Your task to perform on an android device: toggle notifications settings in the gmail app Image 0: 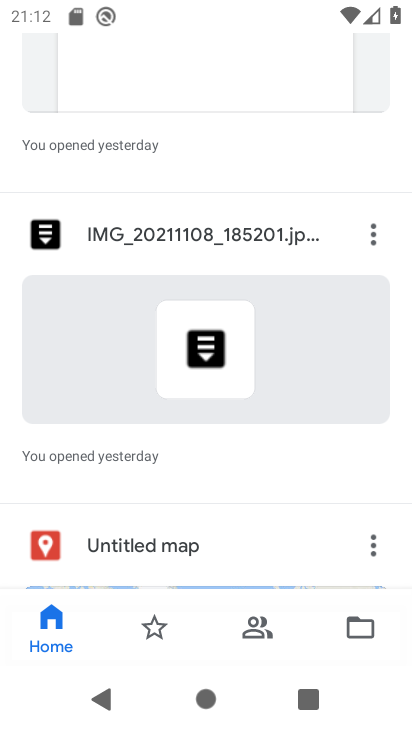
Step 0: drag from (214, 540) to (229, 159)
Your task to perform on an android device: toggle notifications settings in the gmail app Image 1: 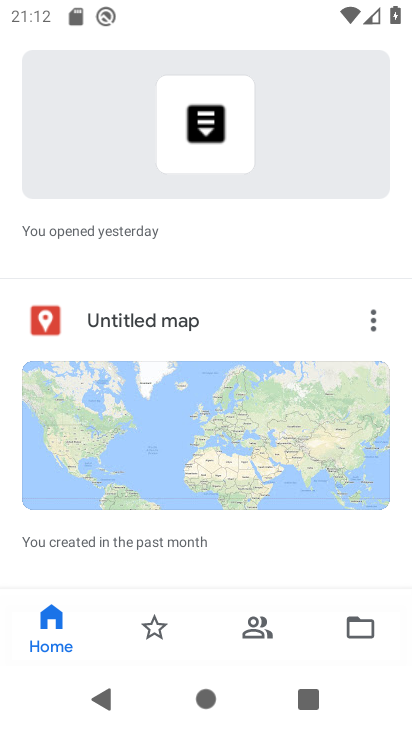
Step 1: drag from (208, 562) to (337, 71)
Your task to perform on an android device: toggle notifications settings in the gmail app Image 2: 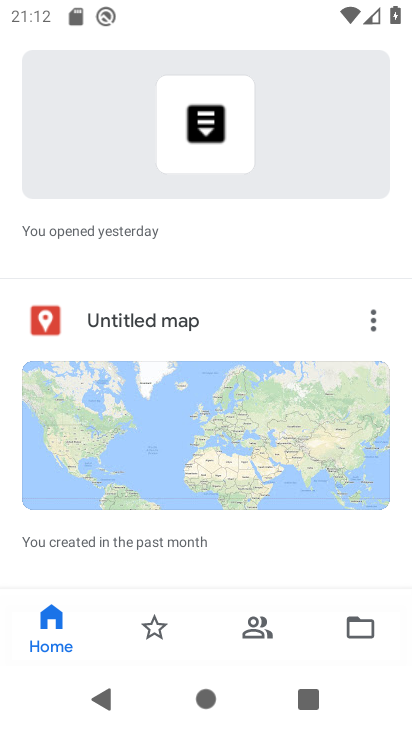
Step 2: drag from (244, 540) to (255, 89)
Your task to perform on an android device: toggle notifications settings in the gmail app Image 3: 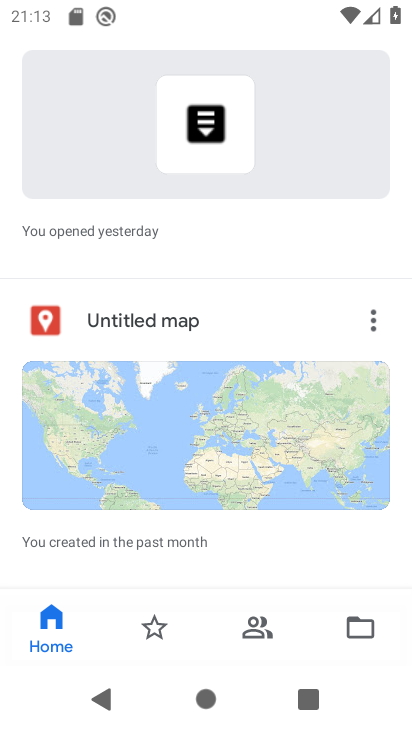
Step 3: drag from (234, 539) to (241, 215)
Your task to perform on an android device: toggle notifications settings in the gmail app Image 4: 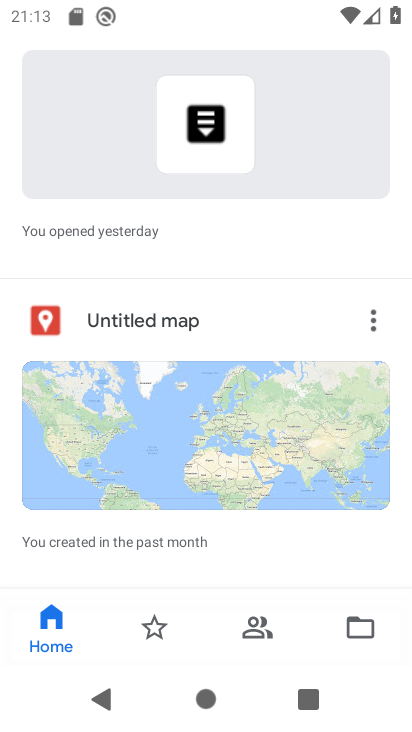
Step 4: drag from (233, 539) to (233, 119)
Your task to perform on an android device: toggle notifications settings in the gmail app Image 5: 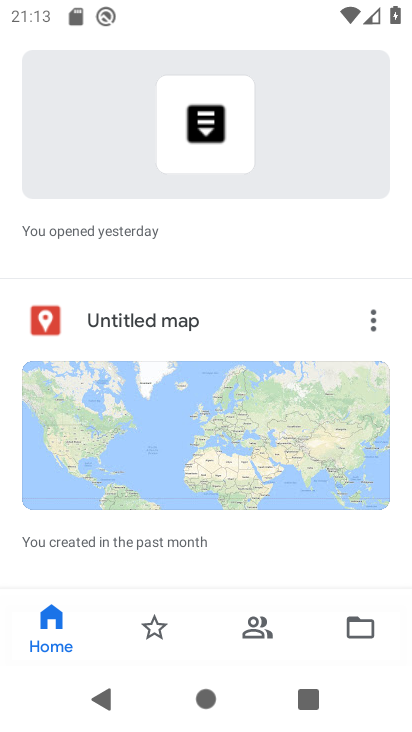
Step 5: drag from (201, 281) to (279, 557)
Your task to perform on an android device: toggle notifications settings in the gmail app Image 6: 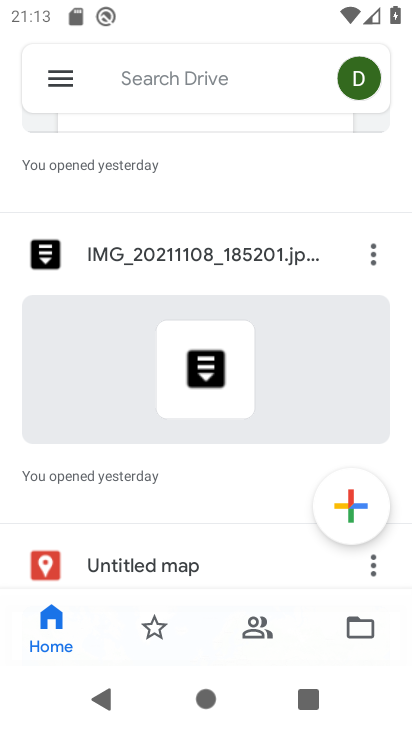
Step 6: click (66, 61)
Your task to perform on an android device: toggle notifications settings in the gmail app Image 7: 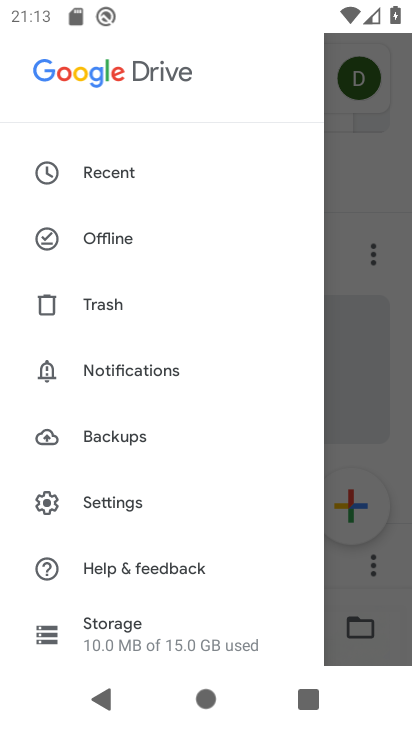
Step 7: press home button
Your task to perform on an android device: toggle notifications settings in the gmail app Image 8: 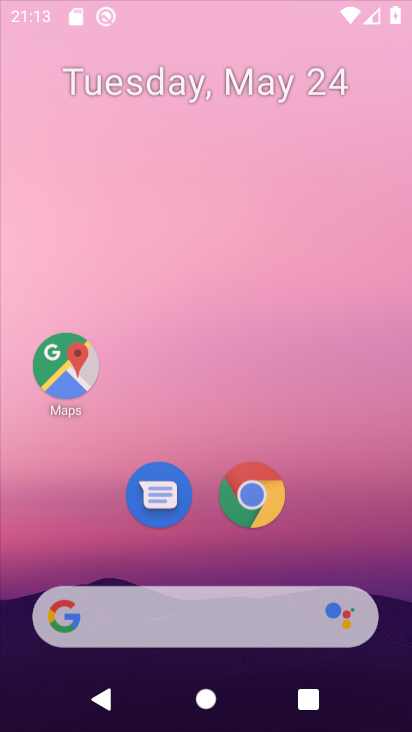
Step 8: drag from (186, 528) to (256, 20)
Your task to perform on an android device: toggle notifications settings in the gmail app Image 9: 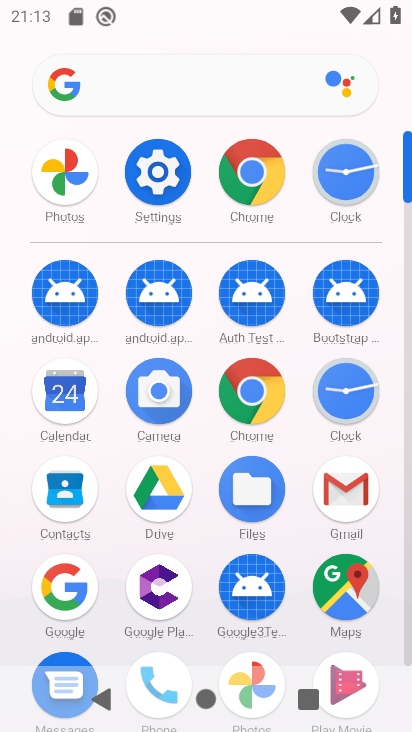
Step 9: click (314, 497)
Your task to perform on an android device: toggle notifications settings in the gmail app Image 10: 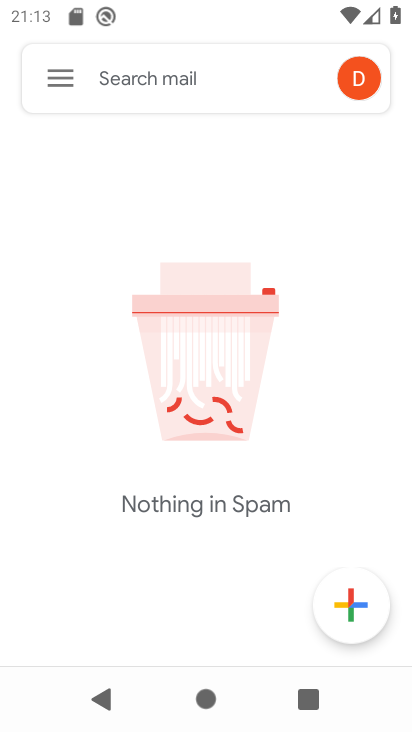
Step 10: click (54, 52)
Your task to perform on an android device: toggle notifications settings in the gmail app Image 11: 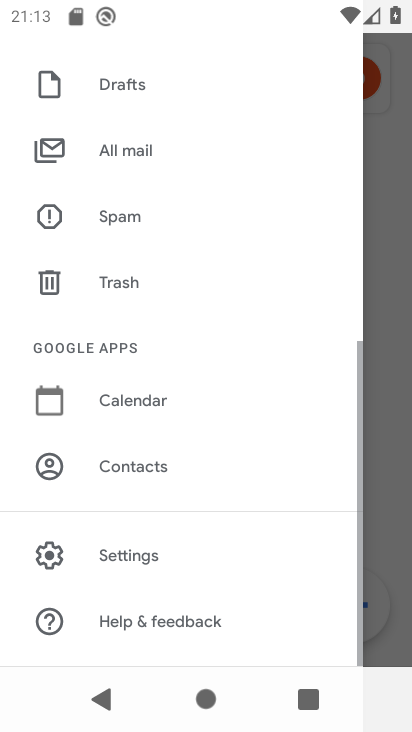
Step 11: drag from (165, 475) to (207, 161)
Your task to perform on an android device: toggle notifications settings in the gmail app Image 12: 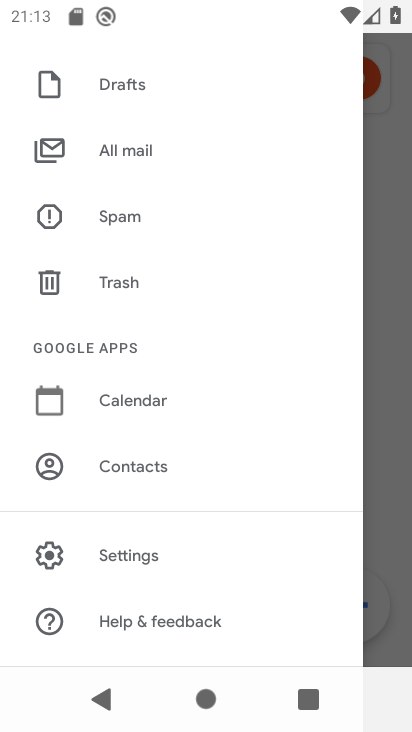
Step 12: click (143, 538)
Your task to perform on an android device: toggle notifications settings in the gmail app Image 13: 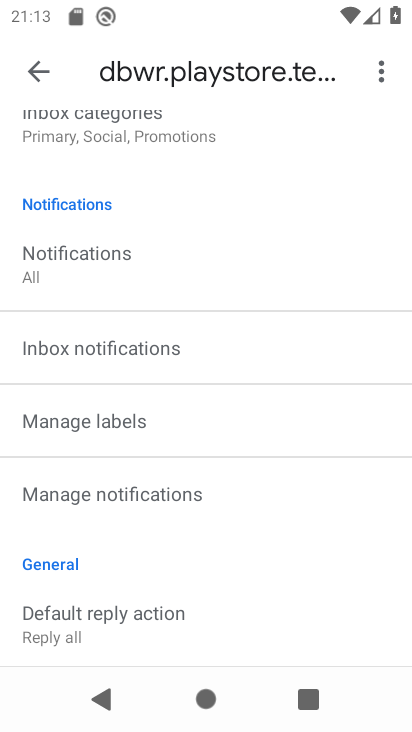
Step 13: click (183, 478)
Your task to perform on an android device: toggle notifications settings in the gmail app Image 14: 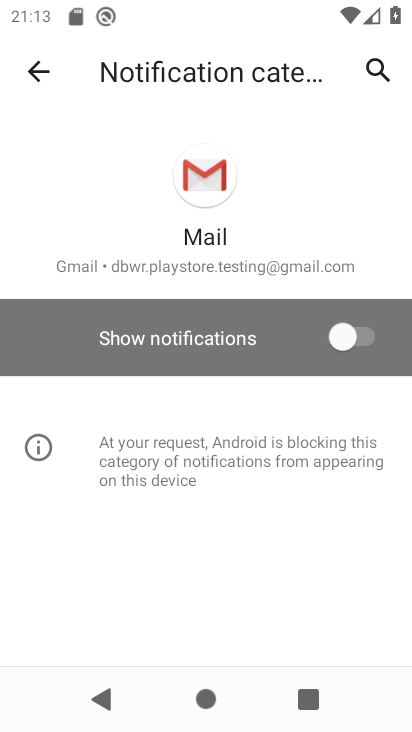
Step 14: click (316, 326)
Your task to perform on an android device: toggle notifications settings in the gmail app Image 15: 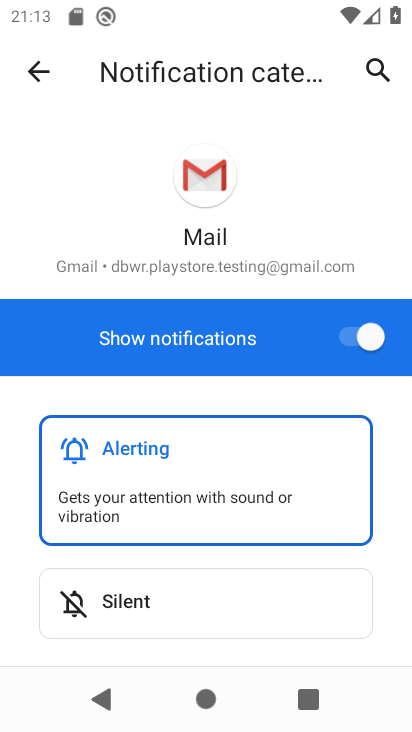
Step 15: task complete